Your task to perform on an android device: Open the calendar and show me this week's events Image 0: 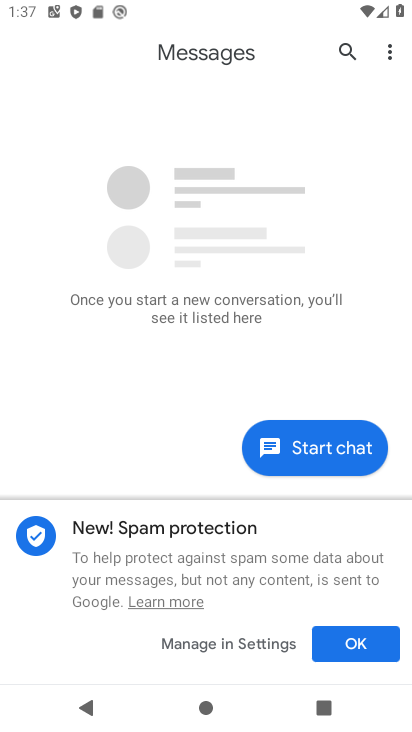
Step 0: press home button
Your task to perform on an android device: Open the calendar and show me this week's events Image 1: 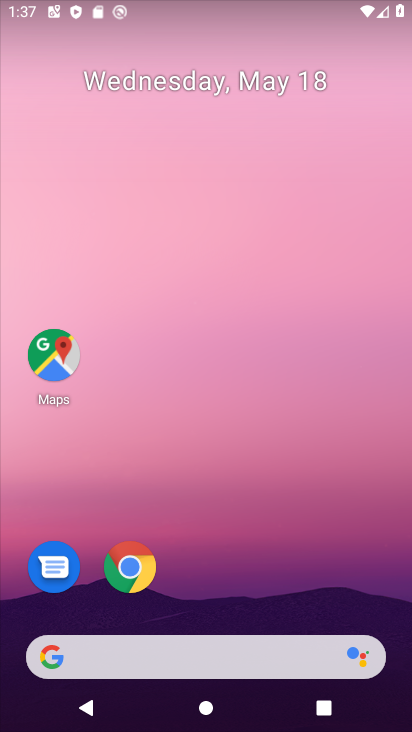
Step 1: drag from (231, 512) to (320, 135)
Your task to perform on an android device: Open the calendar and show me this week's events Image 2: 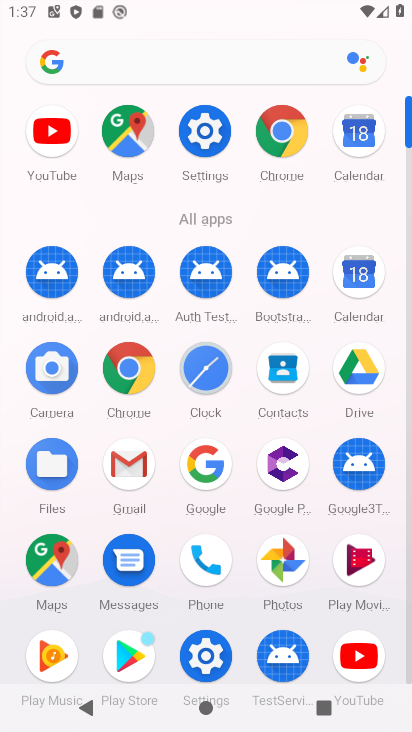
Step 2: click (371, 279)
Your task to perform on an android device: Open the calendar and show me this week's events Image 3: 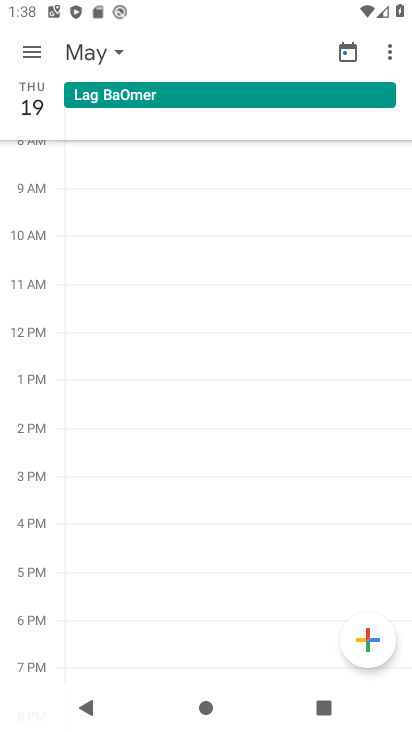
Step 3: click (28, 47)
Your task to perform on an android device: Open the calendar and show me this week's events Image 4: 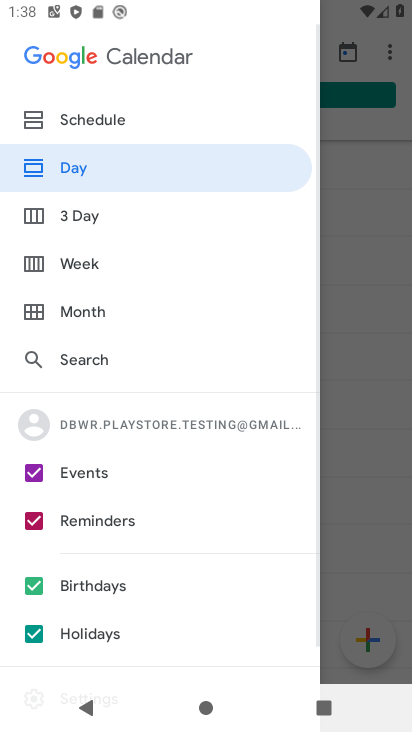
Step 4: click (95, 267)
Your task to perform on an android device: Open the calendar and show me this week's events Image 5: 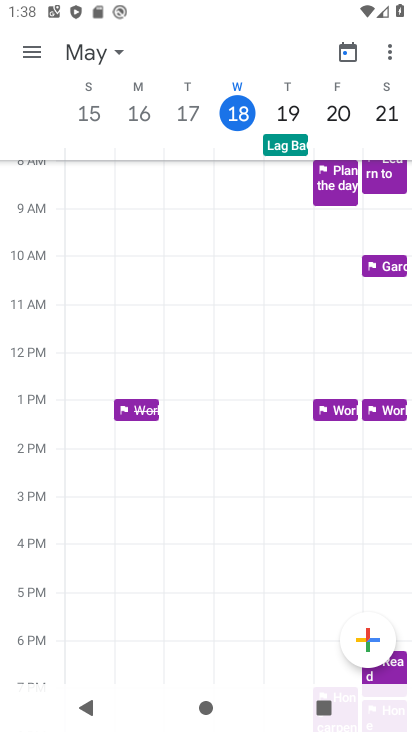
Step 5: task complete